Your task to perform on an android device: Check the weather Image 0: 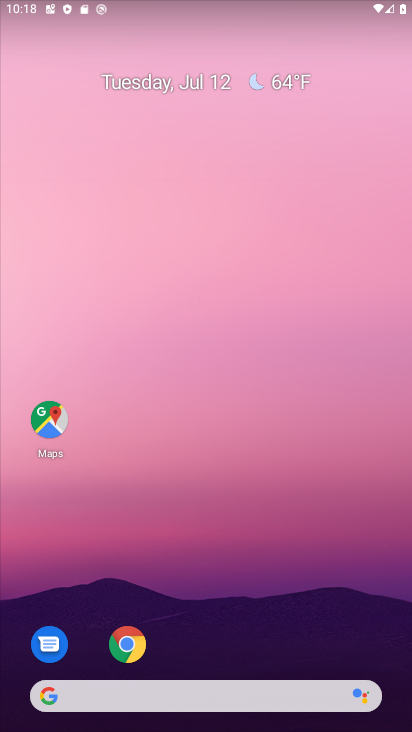
Step 0: drag from (280, 628) to (277, 91)
Your task to perform on an android device: Check the weather Image 1: 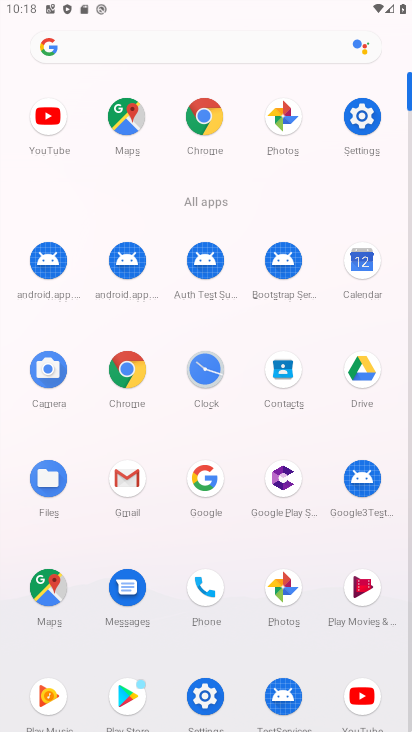
Step 1: click (198, 53)
Your task to perform on an android device: Check the weather Image 2: 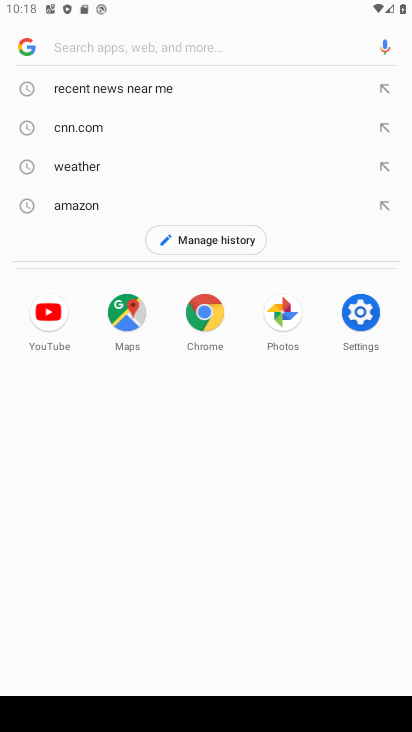
Step 2: click (103, 171)
Your task to perform on an android device: Check the weather Image 3: 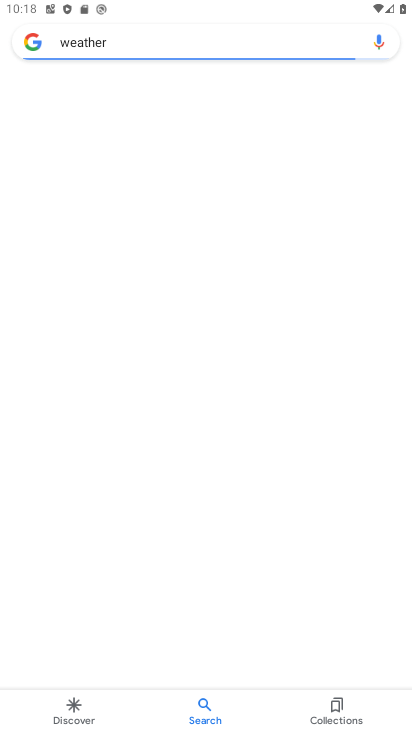
Step 3: task complete